Your task to perform on an android device: open chrome and create a bookmark for the current page Image 0: 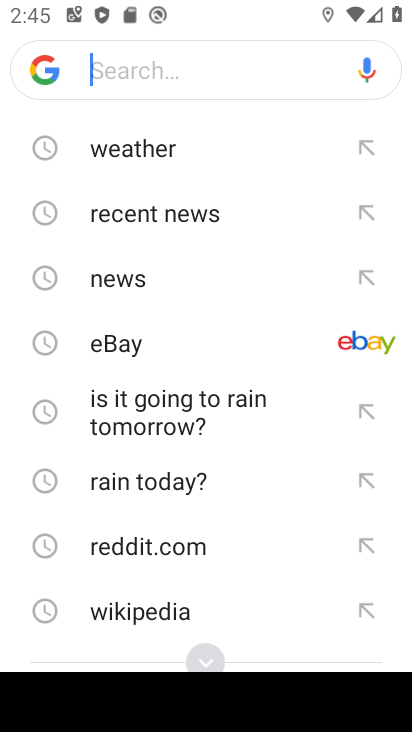
Step 0: drag from (232, 614) to (326, 5)
Your task to perform on an android device: open chrome and create a bookmark for the current page Image 1: 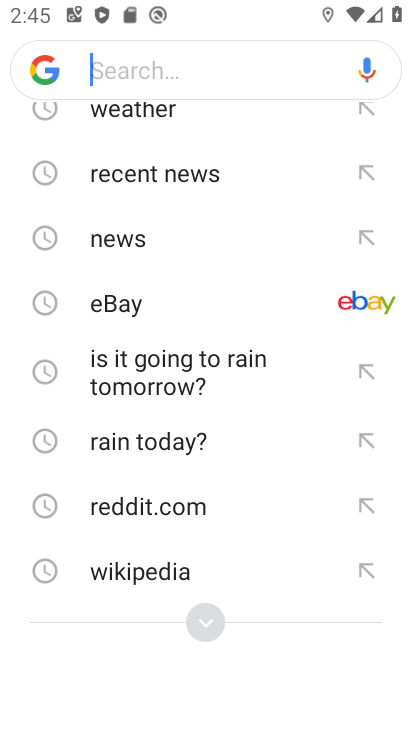
Step 1: press home button
Your task to perform on an android device: open chrome and create a bookmark for the current page Image 2: 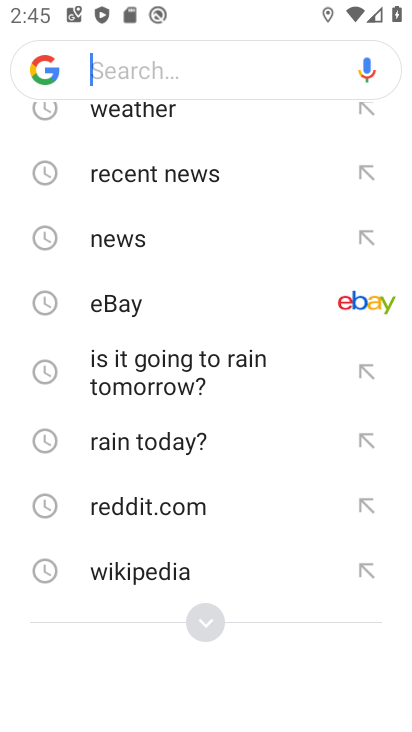
Step 2: drag from (326, 5) to (411, 247)
Your task to perform on an android device: open chrome and create a bookmark for the current page Image 3: 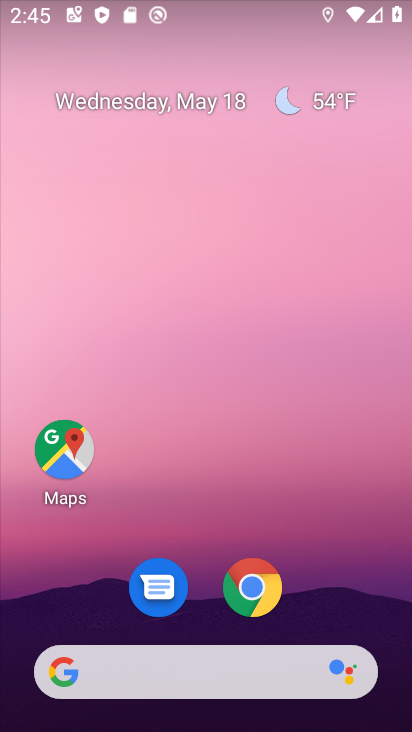
Step 3: drag from (220, 629) to (216, 111)
Your task to perform on an android device: open chrome and create a bookmark for the current page Image 4: 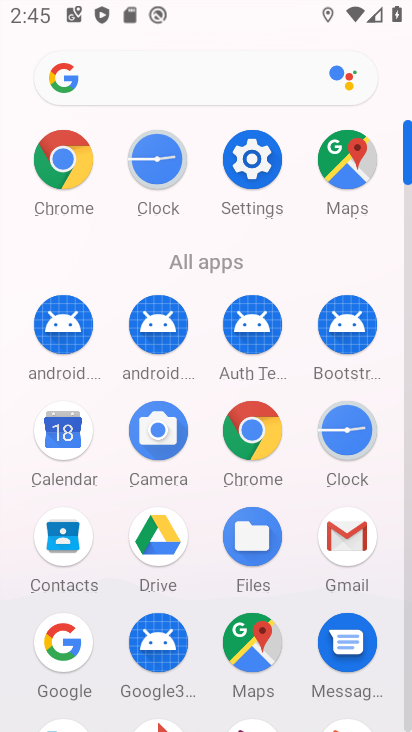
Step 4: click (174, 79)
Your task to perform on an android device: open chrome and create a bookmark for the current page Image 5: 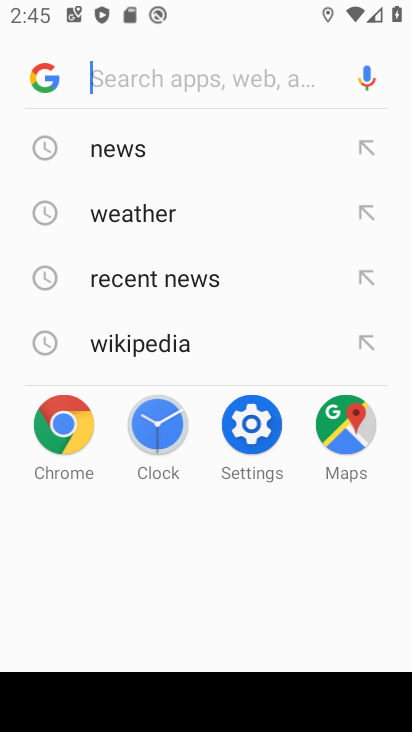
Step 5: press home button
Your task to perform on an android device: open chrome and create a bookmark for the current page Image 6: 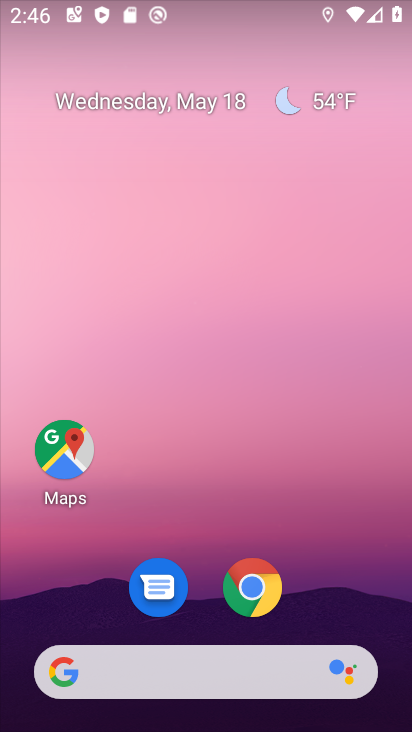
Step 6: click (286, 582)
Your task to perform on an android device: open chrome and create a bookmark for the current page Image 7: 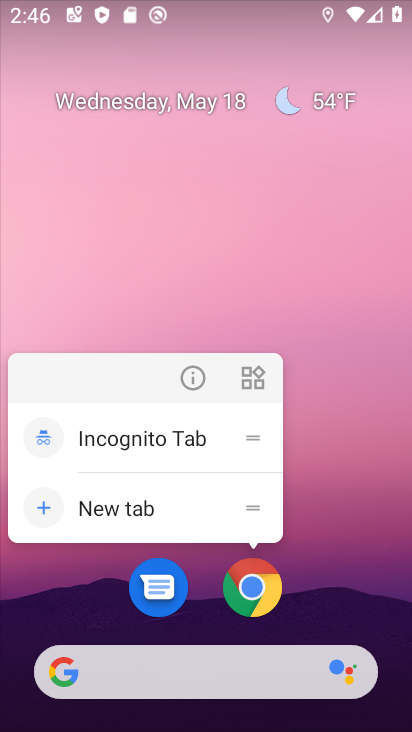
Step 7: click (181, 382)
Your task to perform on an android device: open chrome and create a bookmark for the current page Image 8: 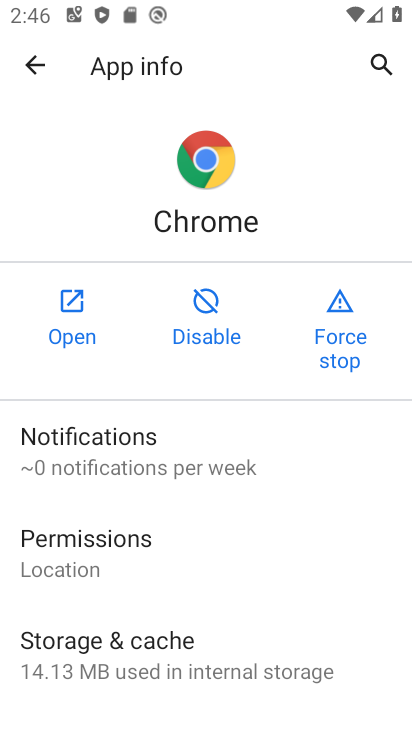
Step 8: click (48, 322)
Your task to perform on an android device: open chrome and create a bookmark for the current page Image 9: 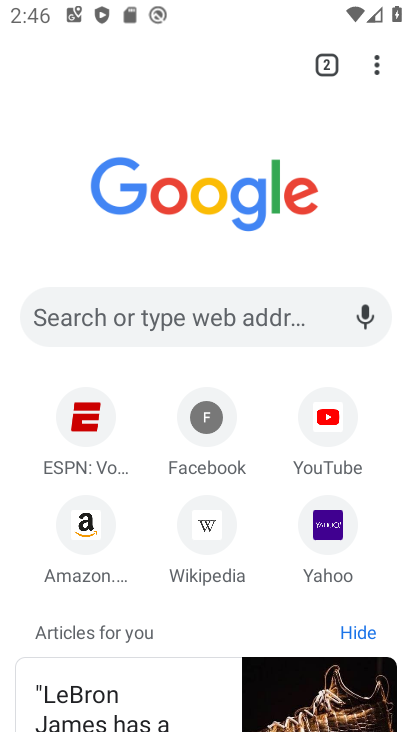
Step 9: click (377, 70)
Your task to perform on an android device: open chrome and create a bookmark for the current page Image 10: 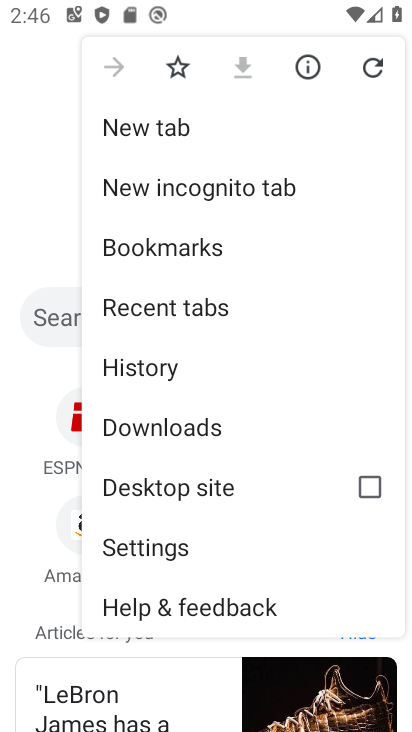
Step 10: click (184, 64)
Your task to perform on an android device: open chrome and create a bookmark for the current page Image 11: 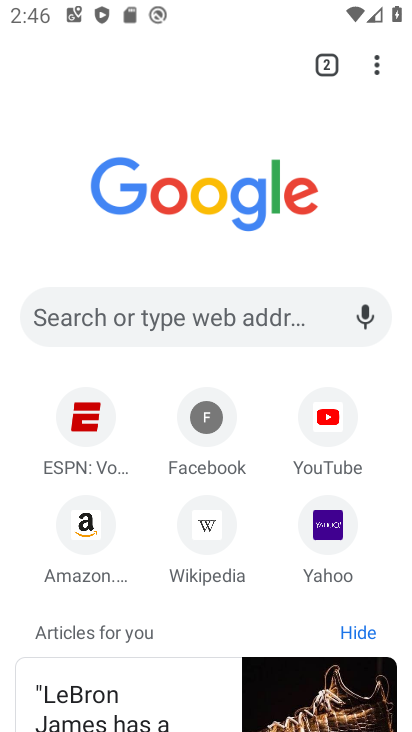
Step 11: task complete